Your task to perform on an android device: open chrome privacy settings Image 0: 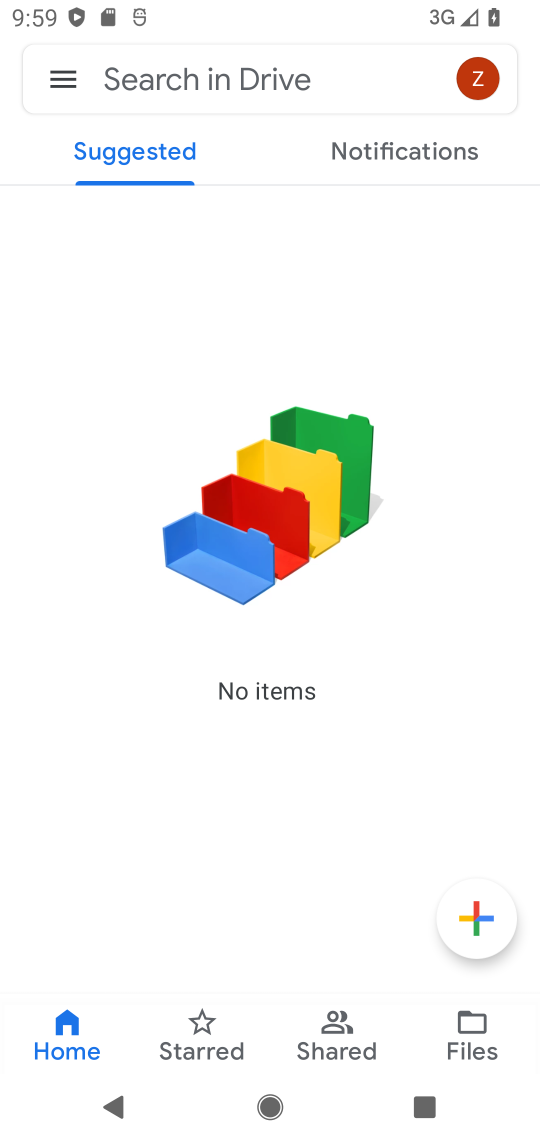
Step 0: press home button
Your task to perform on an android device: open chrome privacy settings Image 1: 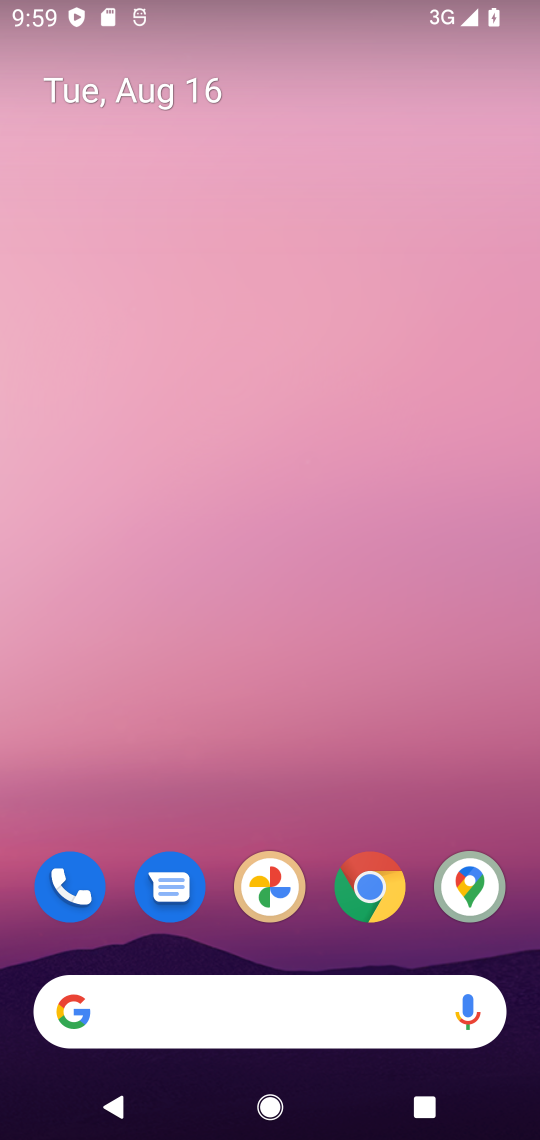
Step 1: drag from (400, 813) to (409, 206)
Your task to perform on an android device: open chrome privacy settings Image 2: 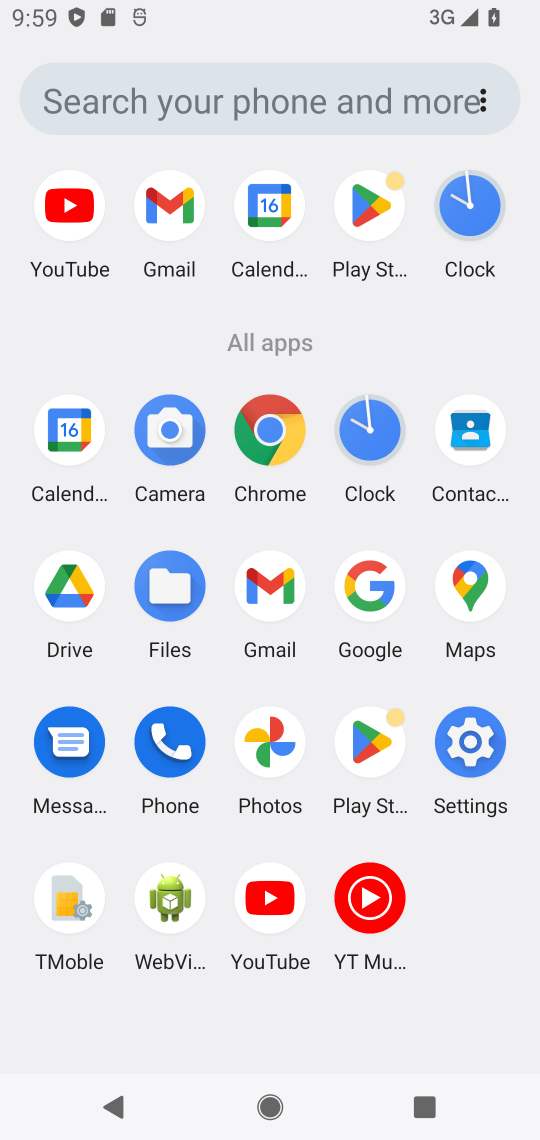
Step 2: click (269, 424)
Your task to perform on an android device: open chrome privacy settings Image 3: 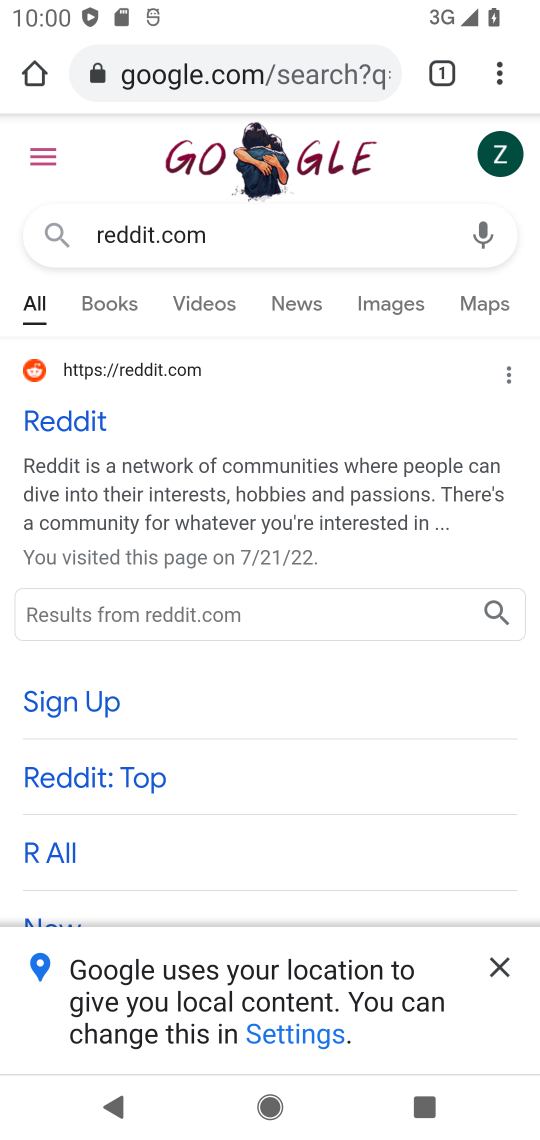
Step 3: click (500, 79)
Your task to perform on an android device: open chrome privacy settings Image 4: 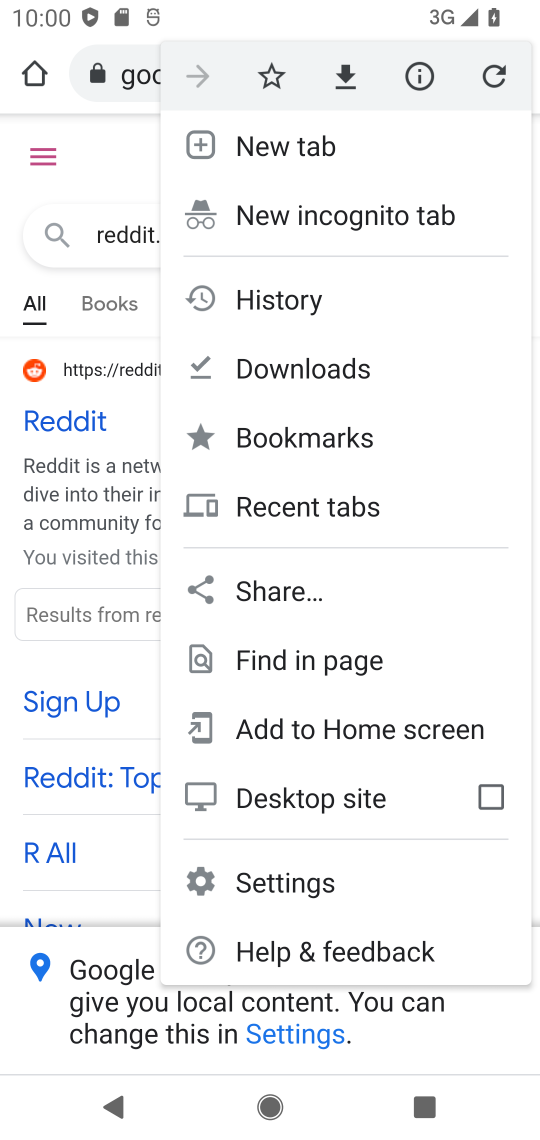
Step 4: click (314, 884)
Your task to perform on an android device: open chrome privacy settings Image 5: 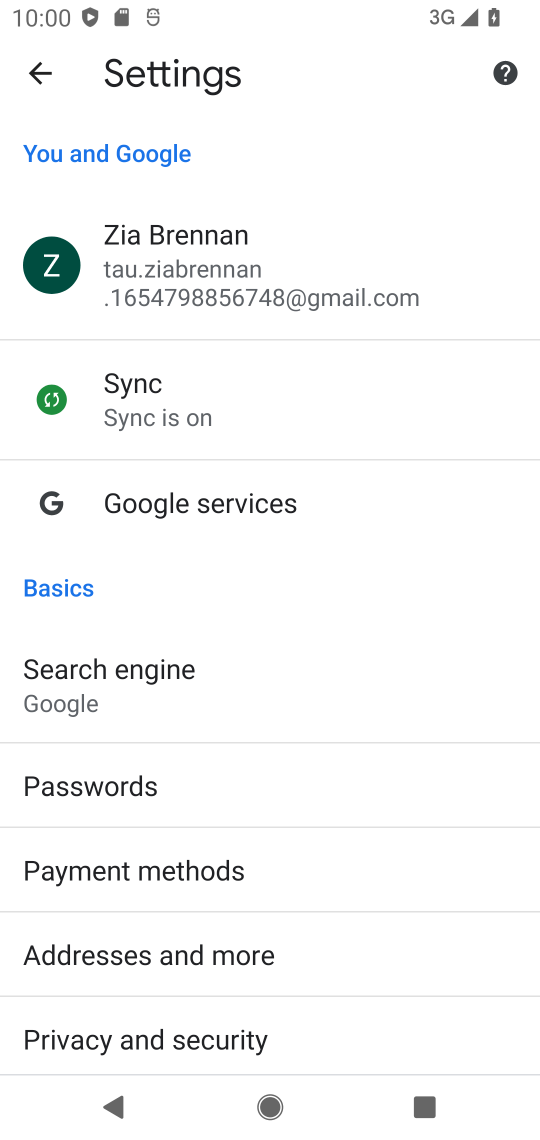
Step 5: drag from (383, 955) to (406, 719)
Your task to perform on an android device: open chrome privacy settings Image 6: 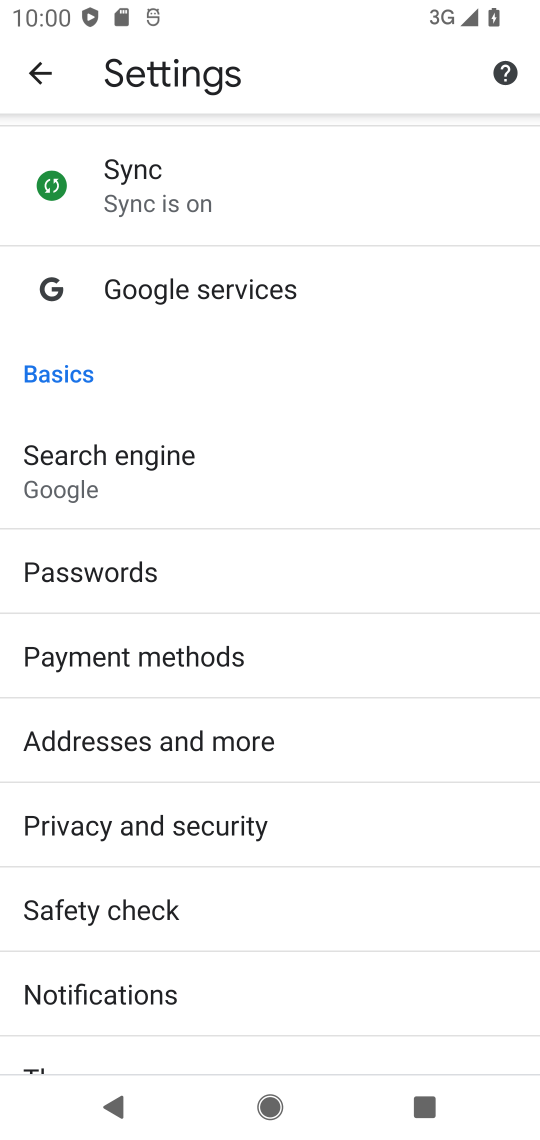
Step 6: drag from (354, 921) to (386, 726)
Your task to perform on an android device: open chrome privacy settings Image 7: 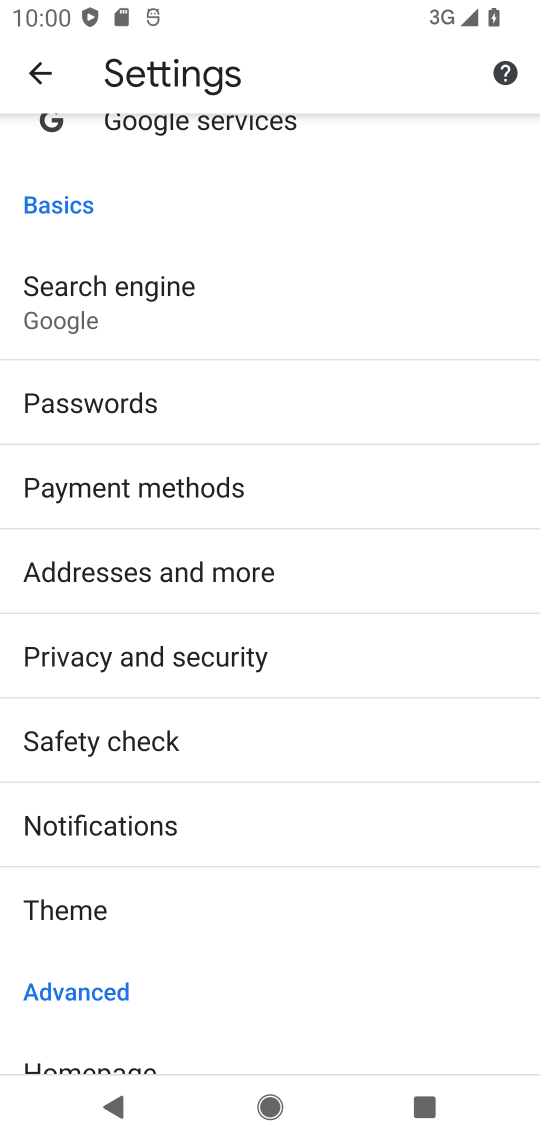
Step 7: click (348, 659)
Your task to perform on an android device: open chrome privacy settings Image 8: 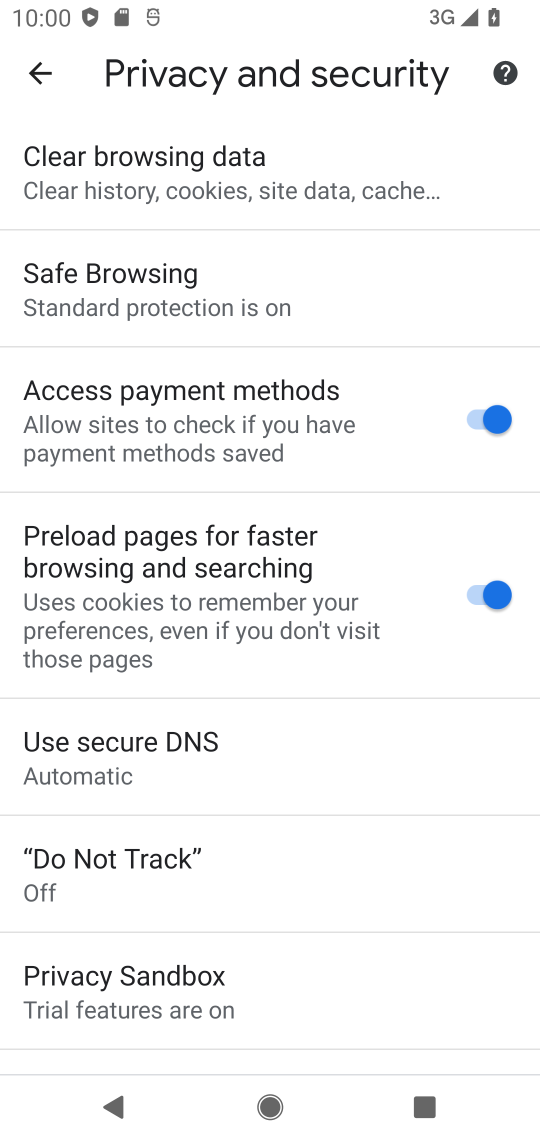
Step 8: task complete